Your task to perform on an android device: open wifi settings Image 0: 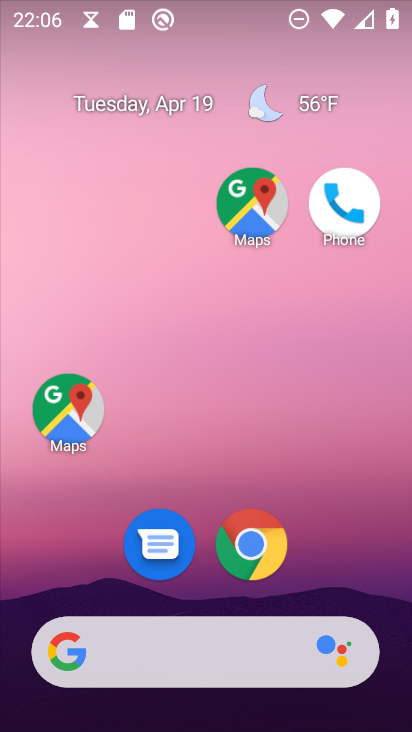
Step 0: drag from (161, 617) to (280, 100)
Your task to perform on an android device: open wifi settings Image 1: 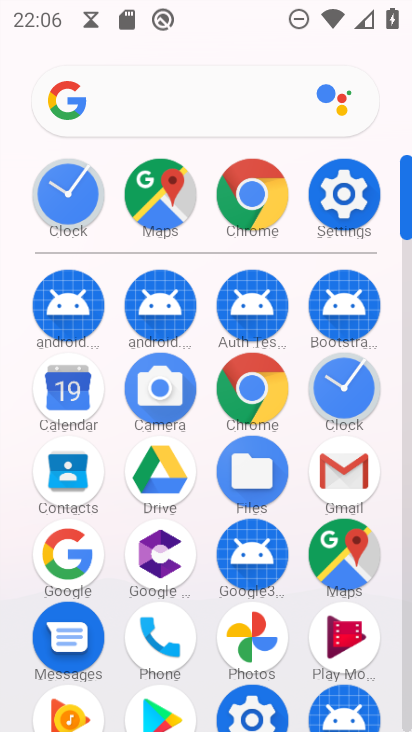
Step 1: click (346, 195)
Your task to perform on an android device: open wifi settings Image 2: 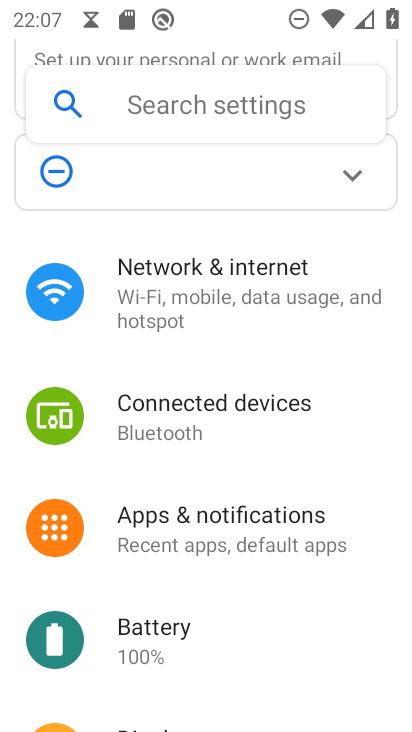
Step 2: click (213, 287)
Your task to perform on an android device: open wifi settings Image 3: 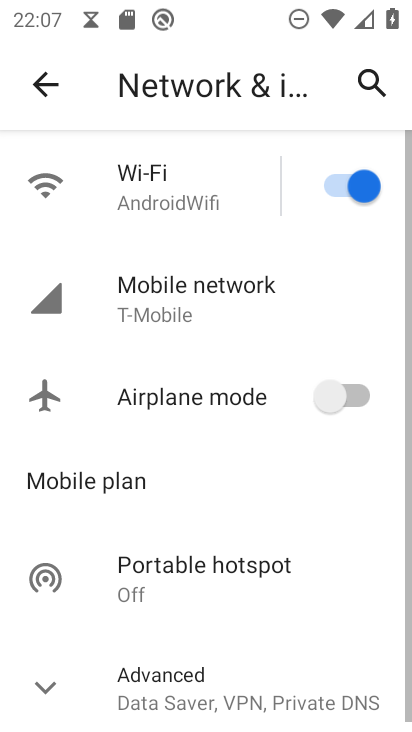
Step 3: click (162, 188)
Your task to perform on an android device: open wifi settings Image 4: 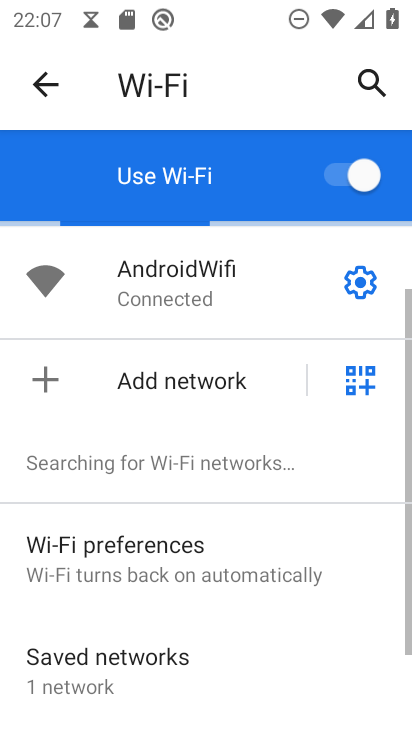
Step 4: task complete